Your task to perform on an android device: turn off picture-in-picture Image 0: 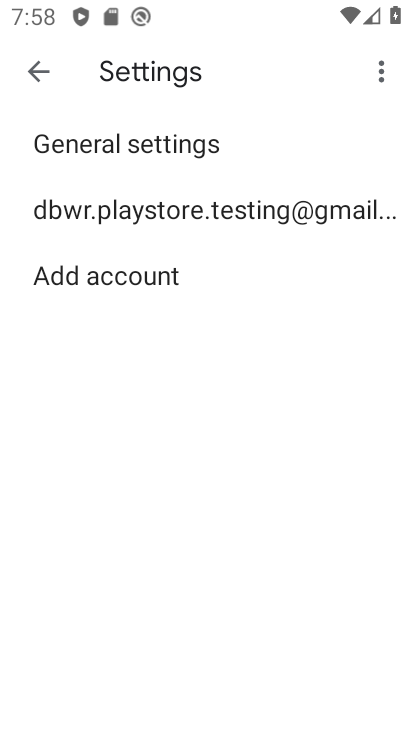
Step 0: press home button
Your task to perform on an android device: turn off picture-in-picture Image 1: 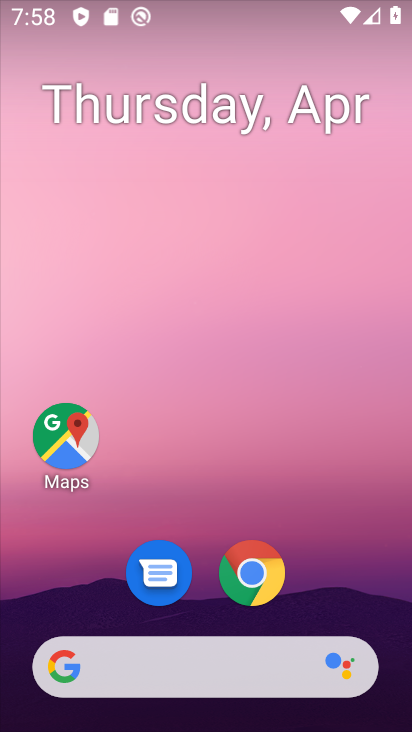
Step 1: drag from (206, 644) to (208, 220)
Your task to perform on an android device: turn off picture-in-picture Image 2: 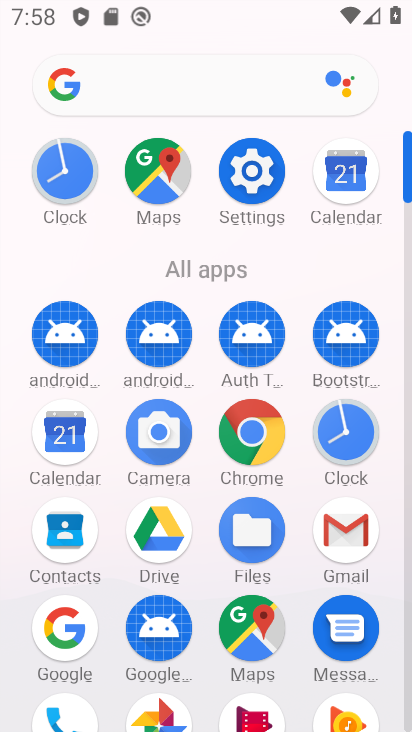
Step 2: click (252, 175)
Your task to perform on an android device: turn off picture-in-picture Image 3: 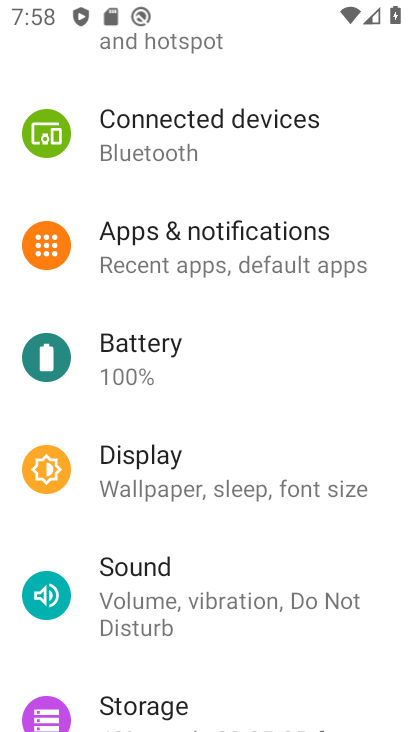
Step 3: click (189, 244)
Your task to perform on an android device: turn off picture-in-picture Image 4: 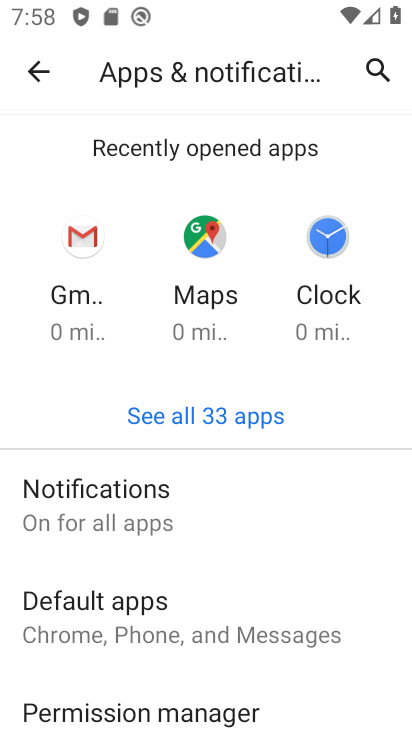
Step 4: drag from (210, 595) to (220, 239)
Your task to perform on an android device: turn off picture-in-picture Image 5: 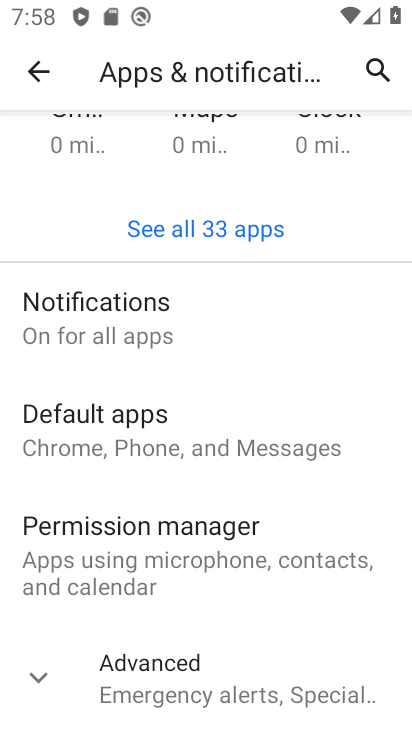
Step 5: click (143, 673)
Your task to perform on an android device: turn off picture-in-picture Image 6: 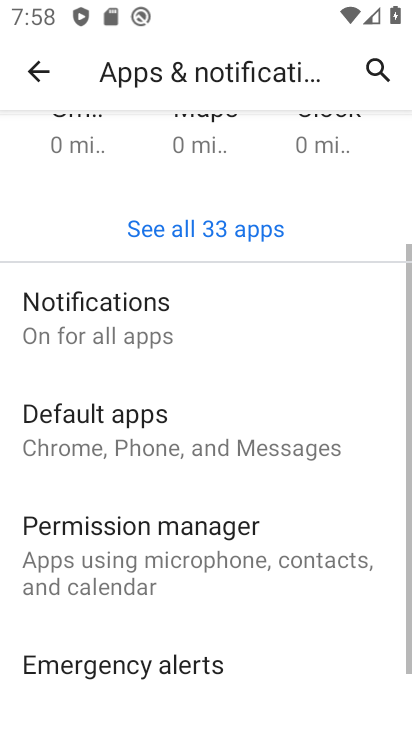
Step 6: drag from (239, 690) to (226, 338)
Your task to perform on an android device: turn off picture-in-picture Image 7: 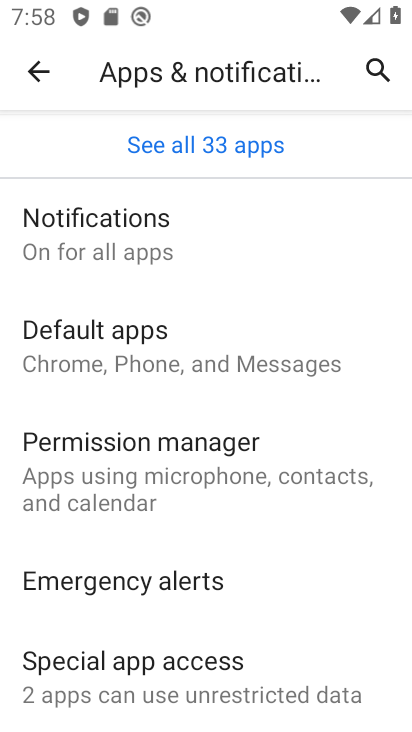
Step 7: click (174, 672)
Your task to perform on an android device: turn off picture-in-picture Image 8: 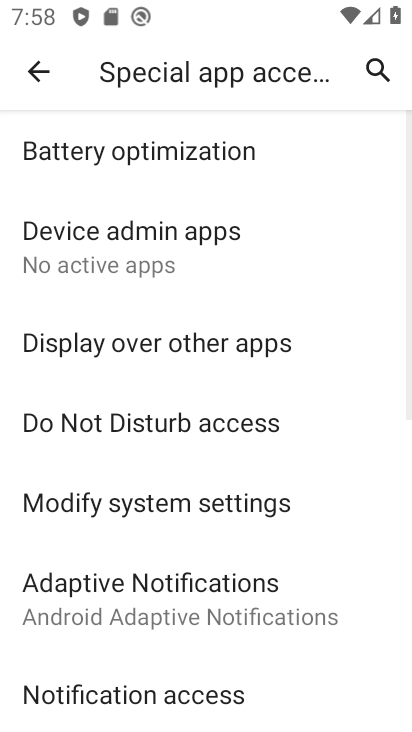
Step 8: drag from (217, 669) to (211, 344)
Your task to perform on an android device: turn off picture-in-picture Image 9: 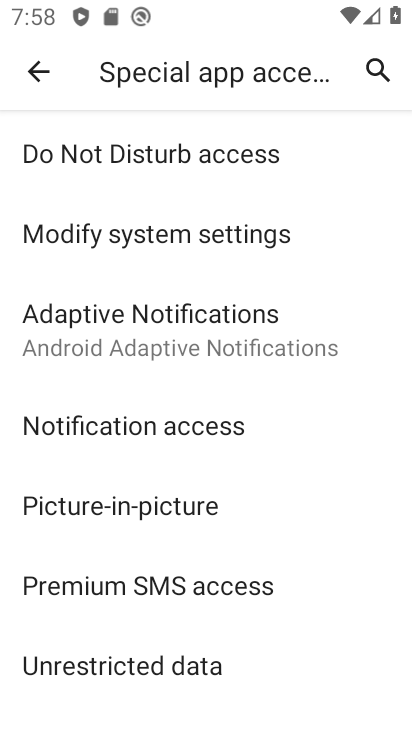
Step 9: click (123, 504)
Your task to perform on an android device: turn off picture-in-picture Image 10: 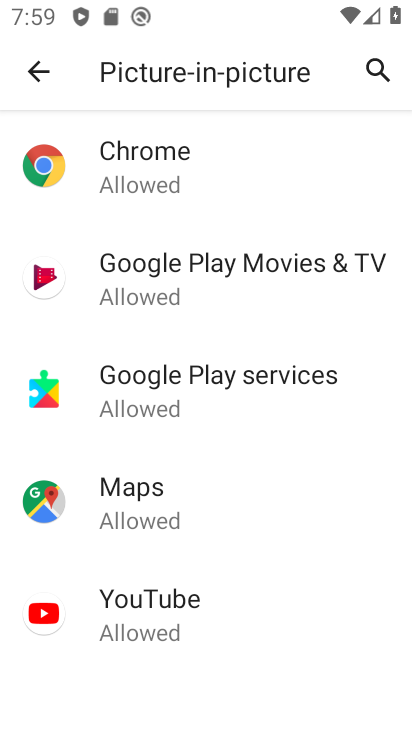
Step 10: click (139, 607)
Your task to perform on an android device: turn off picture-in-picture Image 11: 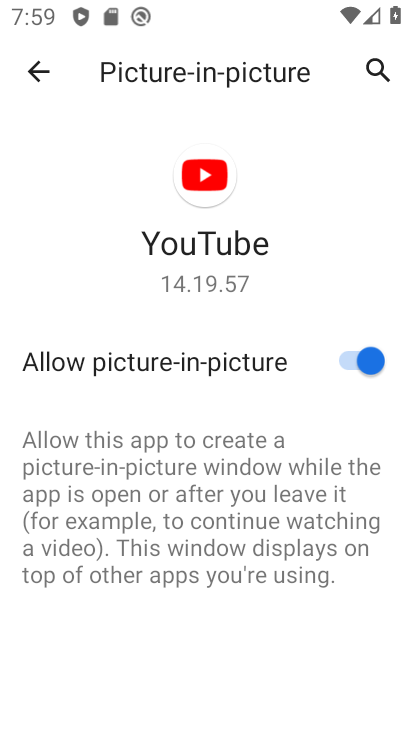
Step 11: click (346, 359)
Your task to perform on an android device: turn off picture-in-picture Image 12: 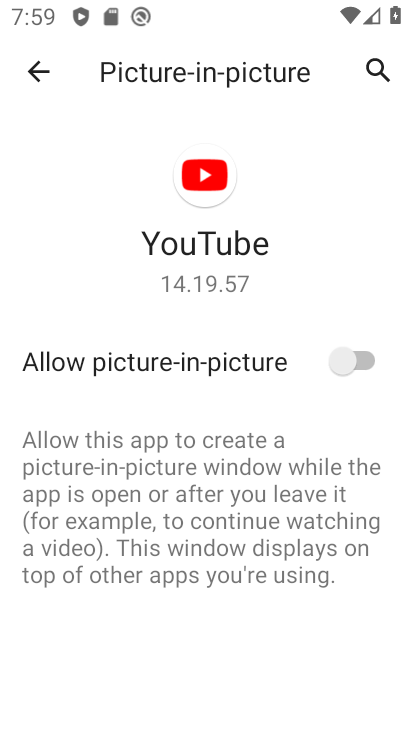
Step 12: task complete